Your task to perform on an android device: Open eBay Image 0: 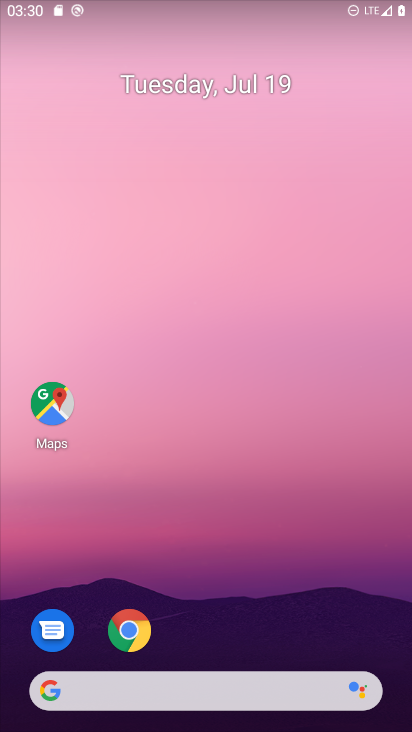
Step 0: click (126, 628)
Your task to perform on an android device: Open eBay Image 1: 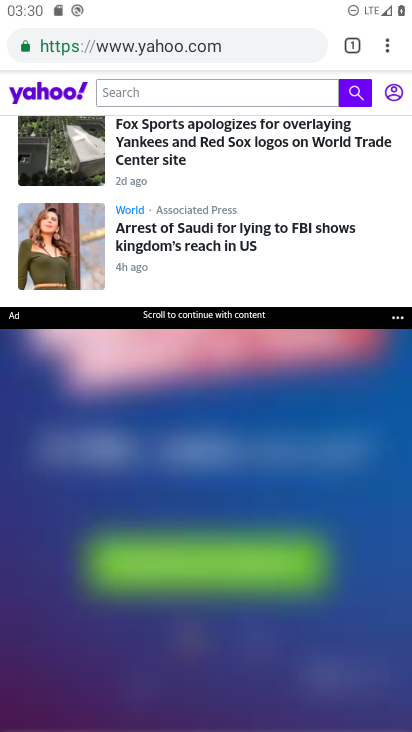
Step 1: click (279, 41)
Your task to perform on an android device: Open eBay Image 2: 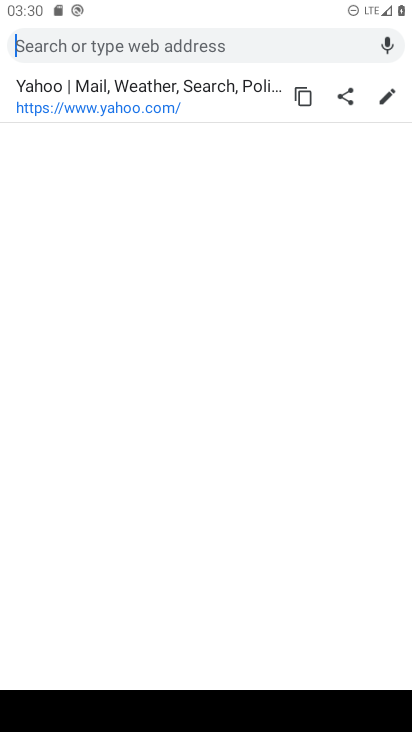
Step 2: type "eBay"
Your task to perform on an android device: Open eBay Image 3: 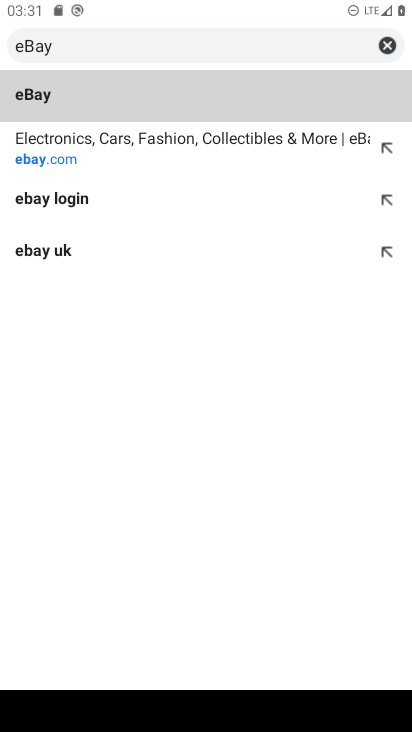
Step 3: click (54, 88)
Your task to perform on an android device: Open eBay Image 4: 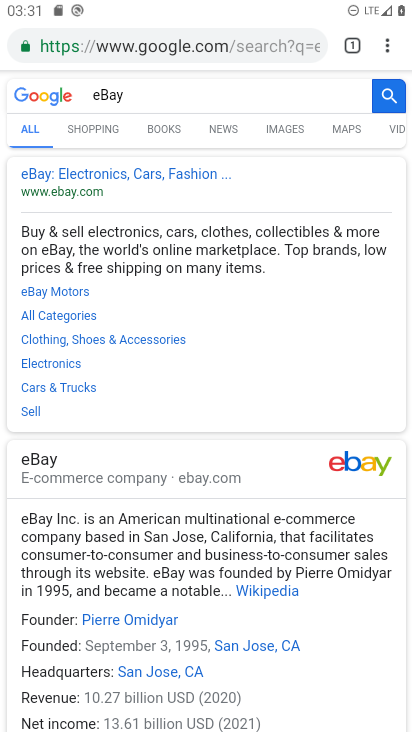
Step 4: click (69, 176)
Your task to perform on an android device: Open eBay Image 5: 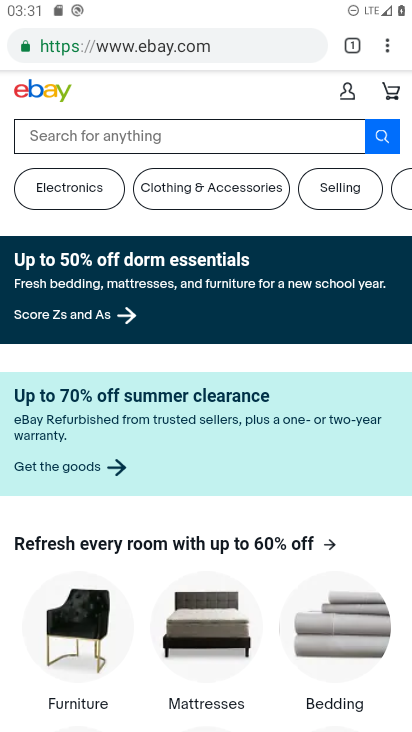
Step 5: task complete